Your task to perform on an android device: Do I have any events today? Image 0: 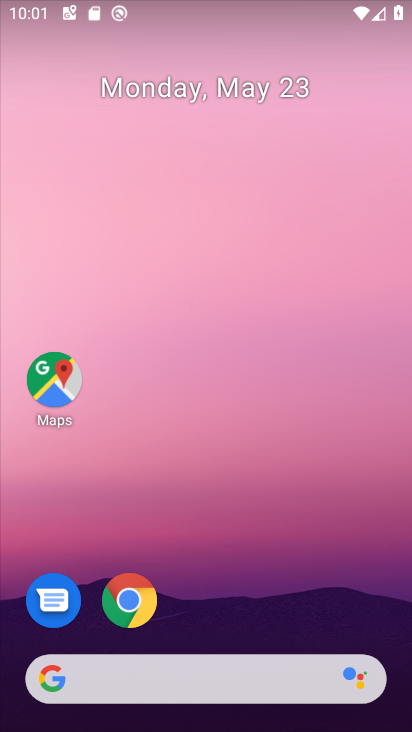
Step 0: drag from (2, 260) to (409, 311)
Your task to perform on an android device: Do I have any events today? Image 1: 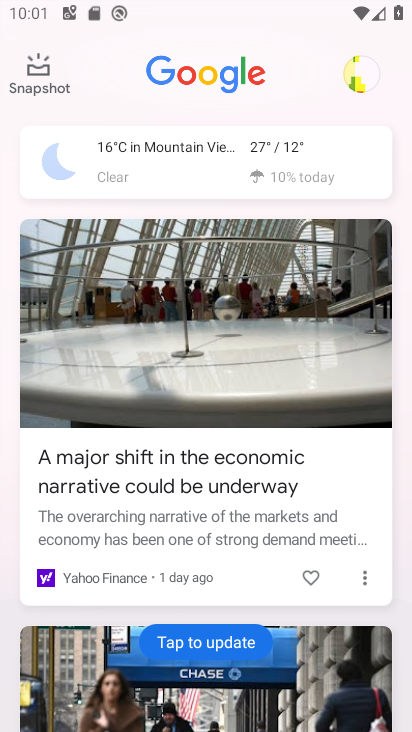
Step 1: press home button
Your task to perform on an android device: Do I have any events today? Image 2: 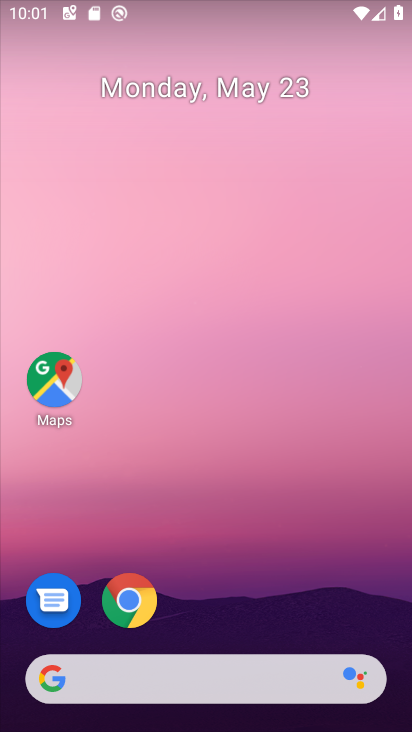
Step 2: drag from (228, 725) to (235, 209)
Your task to perform on an android device: Do I have any events today? Image 3: 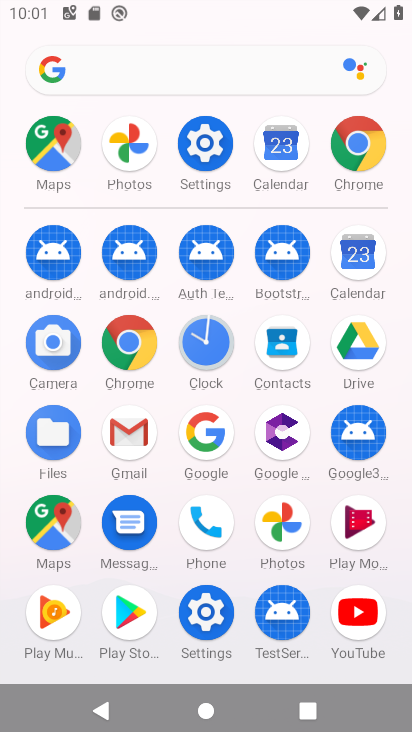
Step 3: click (352, 266)
Your task to perform on an android device: Do I have any events today? Image 4: 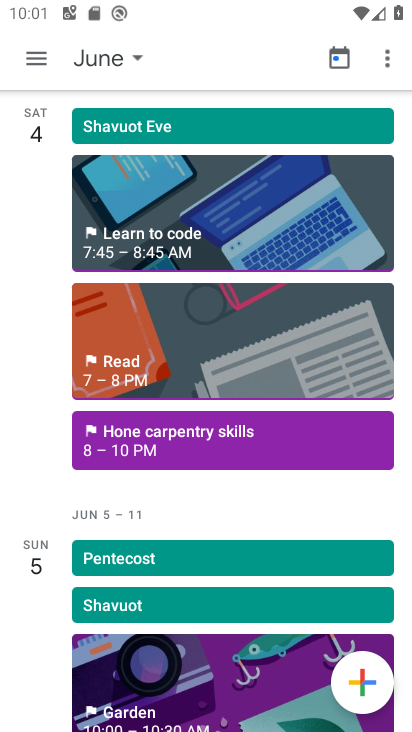
Step 4: click (136, 53)
Your task to perform on an android device: Do I have any events today? Image 5: 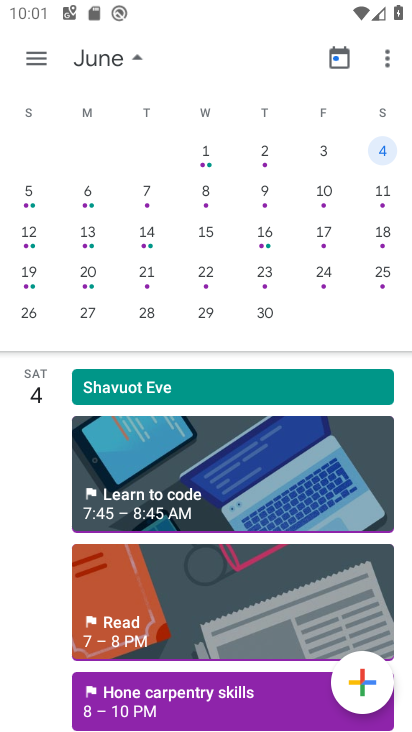
Step 5: drag from (50, 223) to (333, 214)
Your task to perform on an android device: Do I have any events today? Image 6: 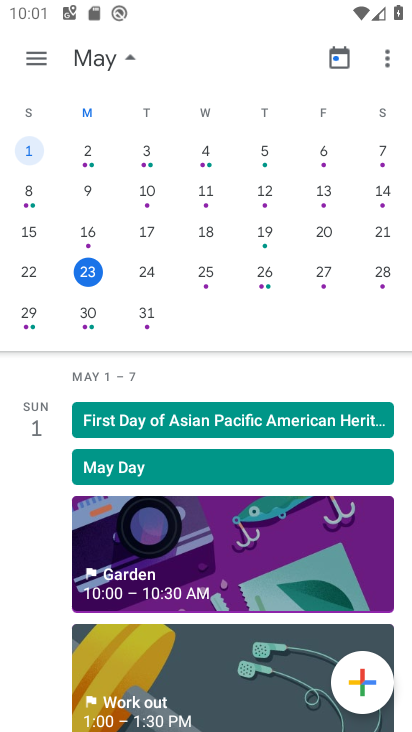
Step 6: click (93, 276)
Your task to perform on an android device: Do I have any events today? Image 7: 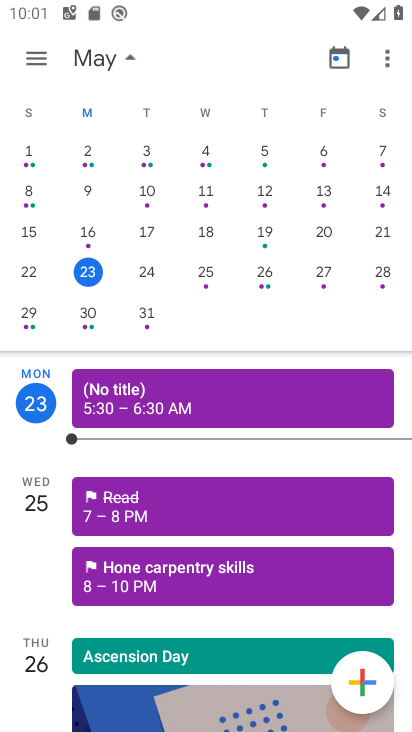
Step 7: click (128, 56)
Your task to perform on an android device: Do I have any events today? Image 8: 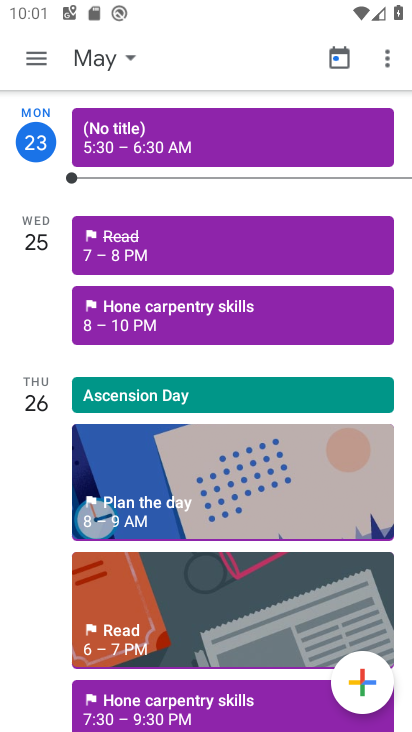
Step 8: task complete